Your task to perform on an android device: allow notifications from all sites in the chrome app Image 0: 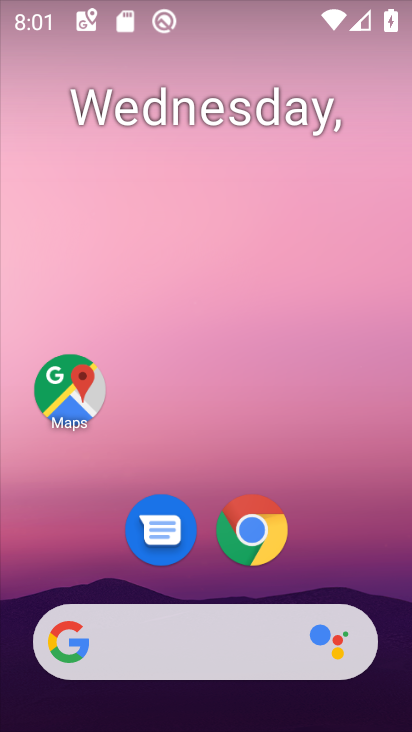
Step 0: drag from (381, 644) to (326, 93)
Your task to perform on an android device: allow notifications from all sites in the chrome app Image 1: 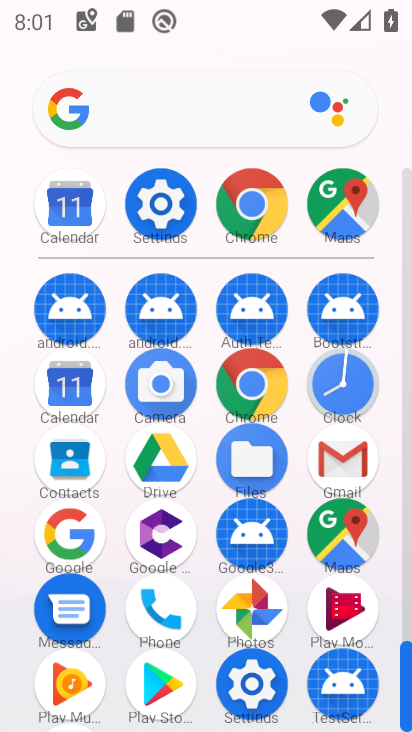
Step 1: click (260, 205)
Your task to perform on an android device: allow notifications from all sites in the chrome app Image 2: 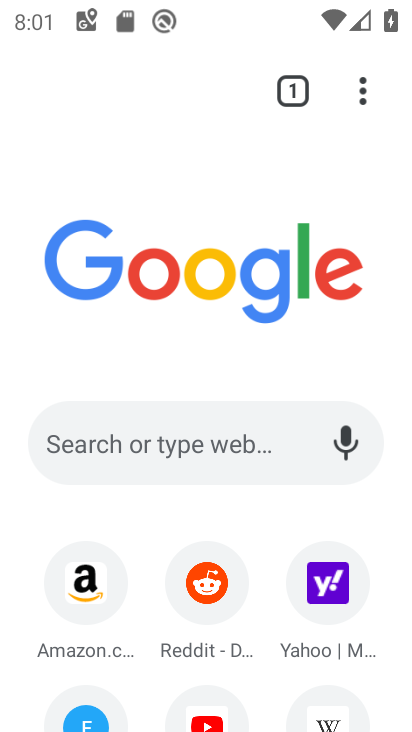
Step 2: click (359, 80)
Your task to perform on an android device: allow notifications from all sites in the chrome app Image 3: 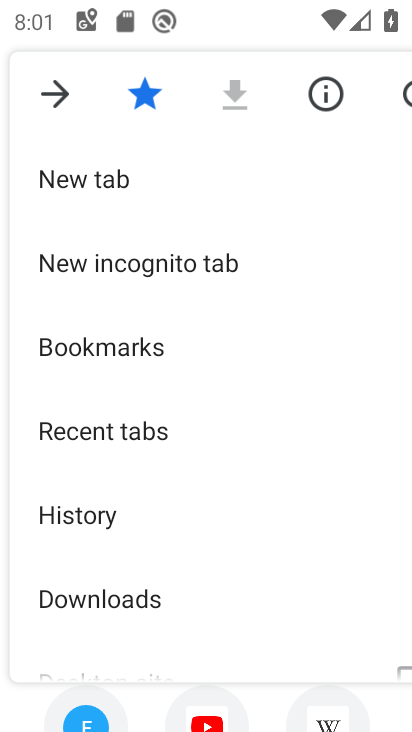
Step 3: drag from (183, 591) to (217, 169)
Your task to perform on an android device: allow notifications from all sites in the chrome app Image 4: 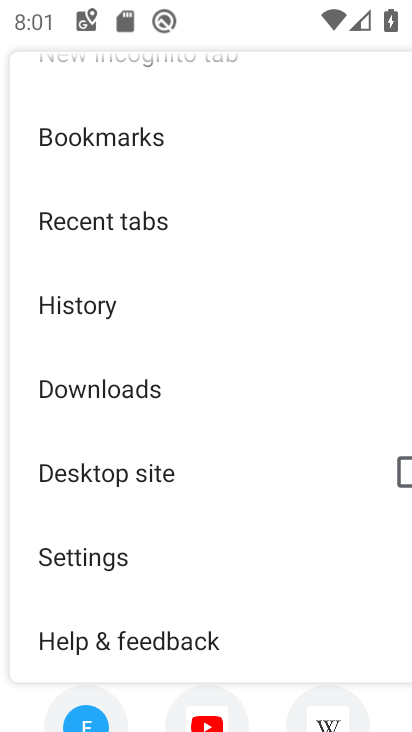
Step 4: click (128, 551)
Your task to perform on an android device: allow notifications from all sites in the chrome app Image 5: 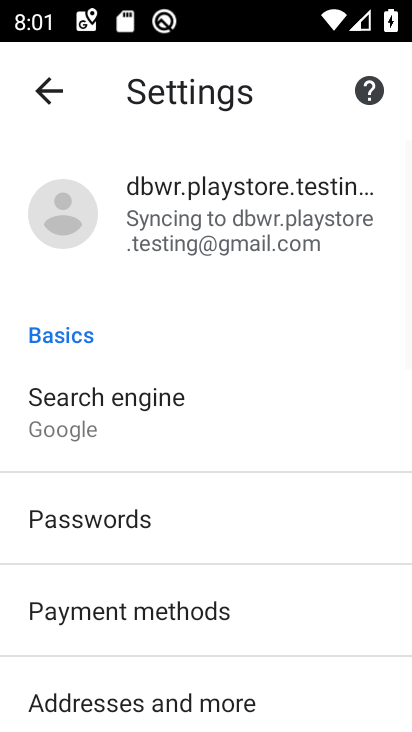
Step 5: drag from (120, 626) to (185, 190)
Your task to perform on an android device: allow notifications from all sites in the chrome app Image 6: 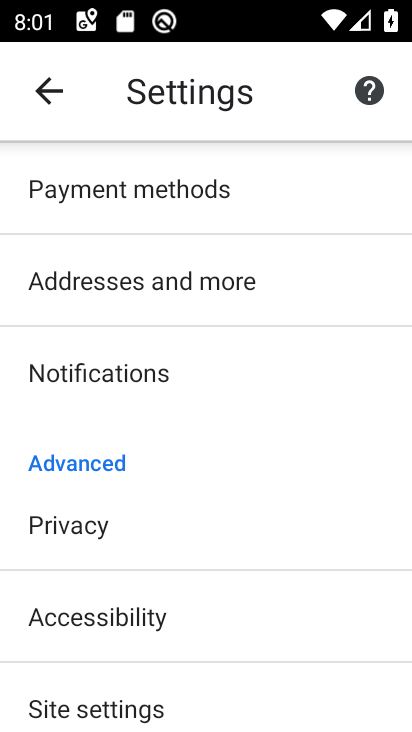
Step 6: click (186, 385)
Your task to perform on an android device: allow notifications from all sites in the chrome app Image 7: 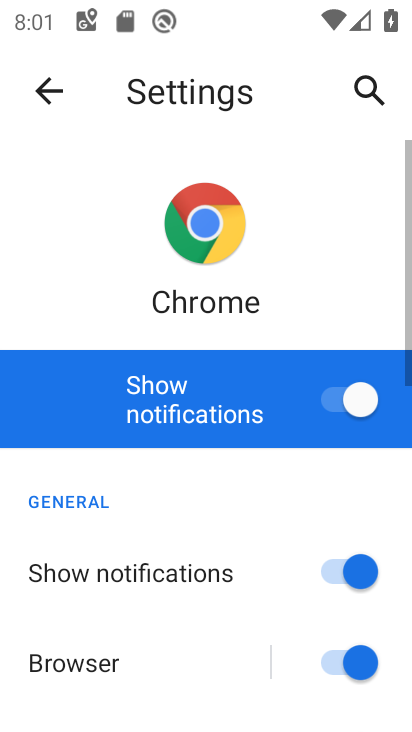
Step 7: task complete